Your task to perform on an android device: See recent photos Image 0: 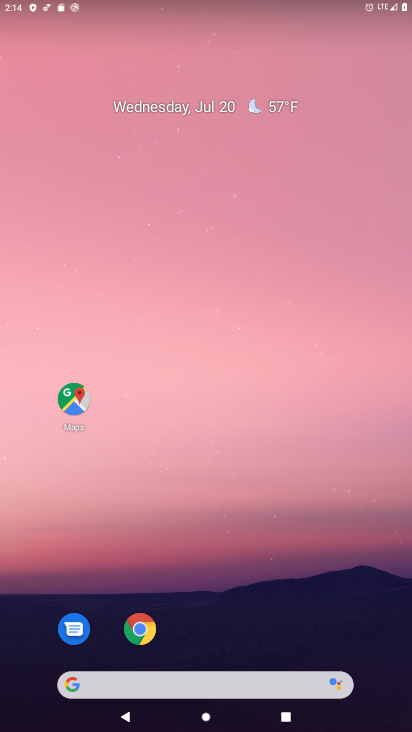
Step 0: drag from (350, 645) to (344, 108)
Your task to perform on an android device: See recent photos Image 1: 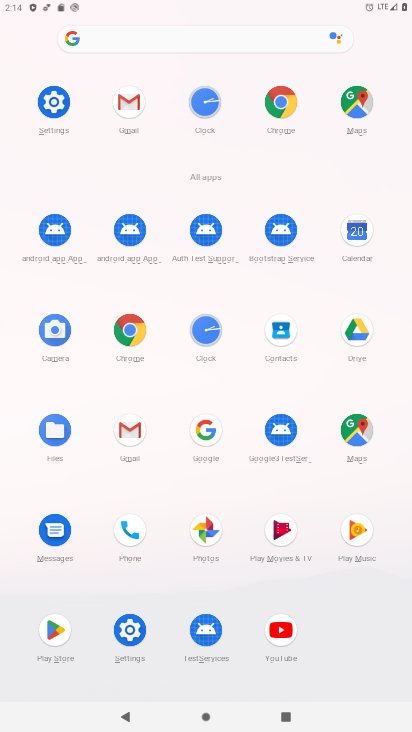
Step 1: click (205, 531)
Your task to perform on an android device: See recent photos Image 2: 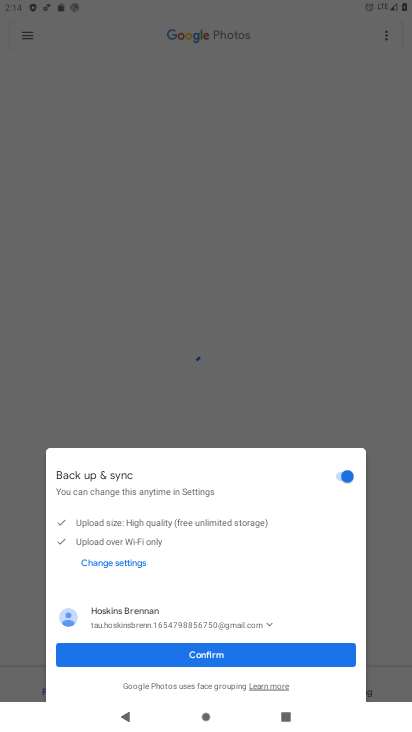
Step 2: click (205, 658)
Your task to perform on an android device: See recent photos Image 3: 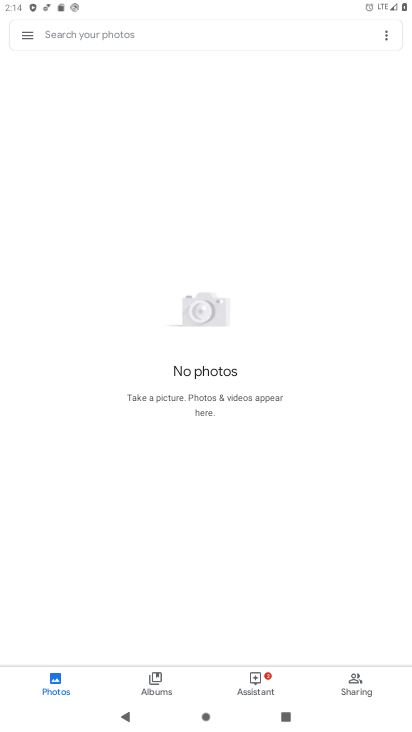
Step 3: task complete